Your task to perform on an android device: Show me productivity apps on the Play Store Image 0: 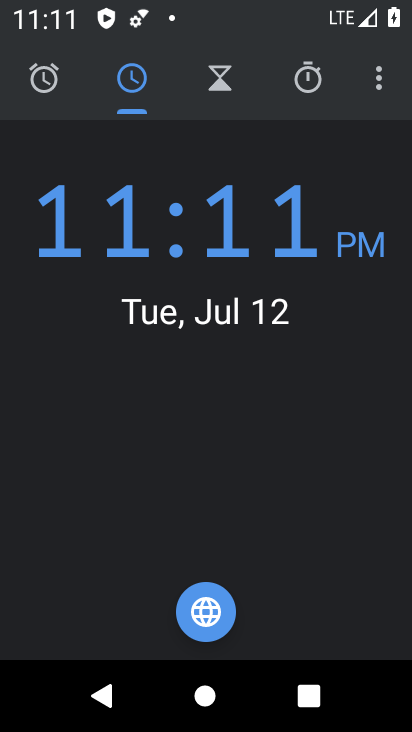
Step 0: press home button
Your task to perform on an android device: Show me productivity apps on the Play Store Image 1: 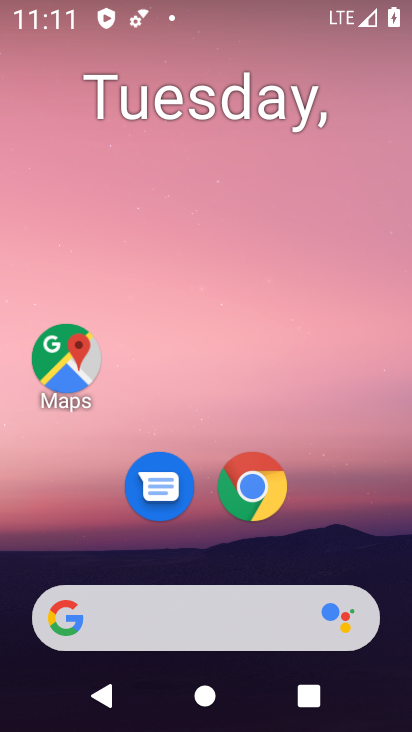
Step 1: drag from (372, 545) to (377, 145)
Your task to perform on an android device: Show me productivity apps on the Play Store Image 2: 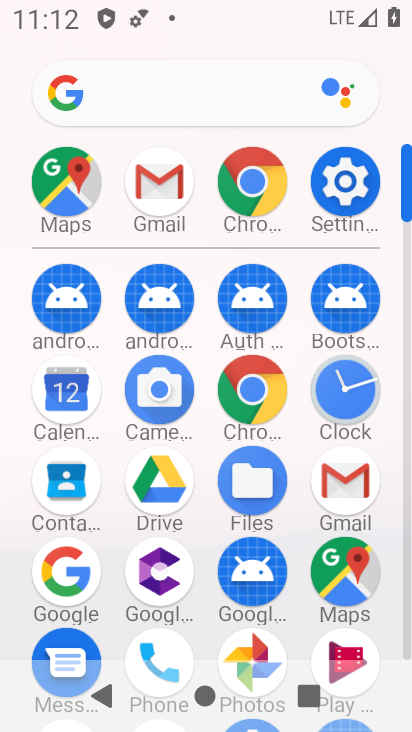
Step 2: drag from (387, 516) to (390, 254)
Your task to perform on an android device: Show me productivity apps on the Play Store Image 3: 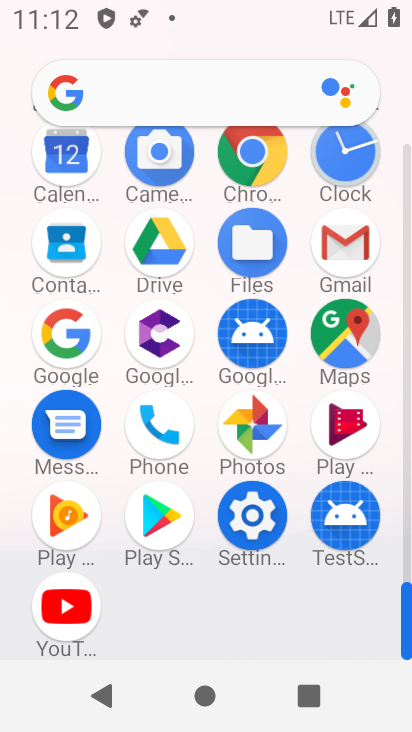
Step 3: click (161, 517)
Your task to perform on an android device: Show me productivity apps on the Play Store Image 4: 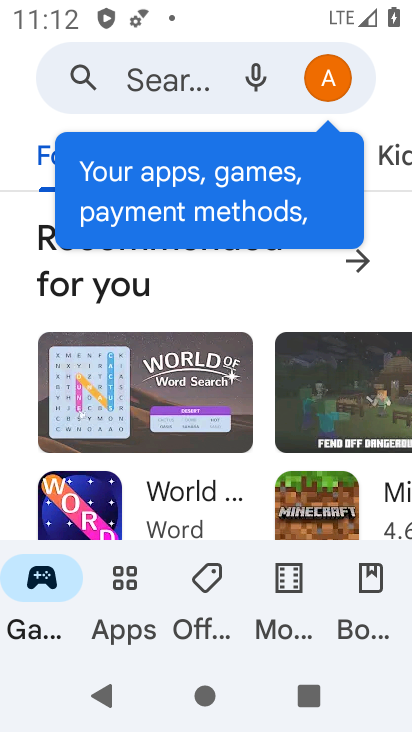
Step 4: click (138, 622)
Your task to perform on an android device: Show me productivity apps on the Play Store Image 5: 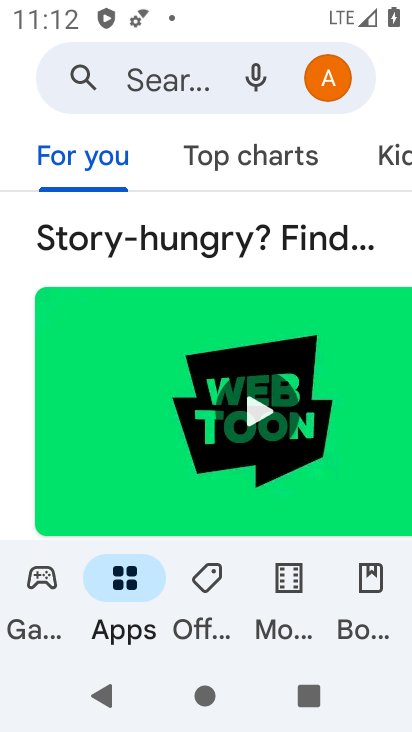
Step 5: task complete